Your task to perform on an android device: install app "Pandora - Music & Podcasts" Image 0: 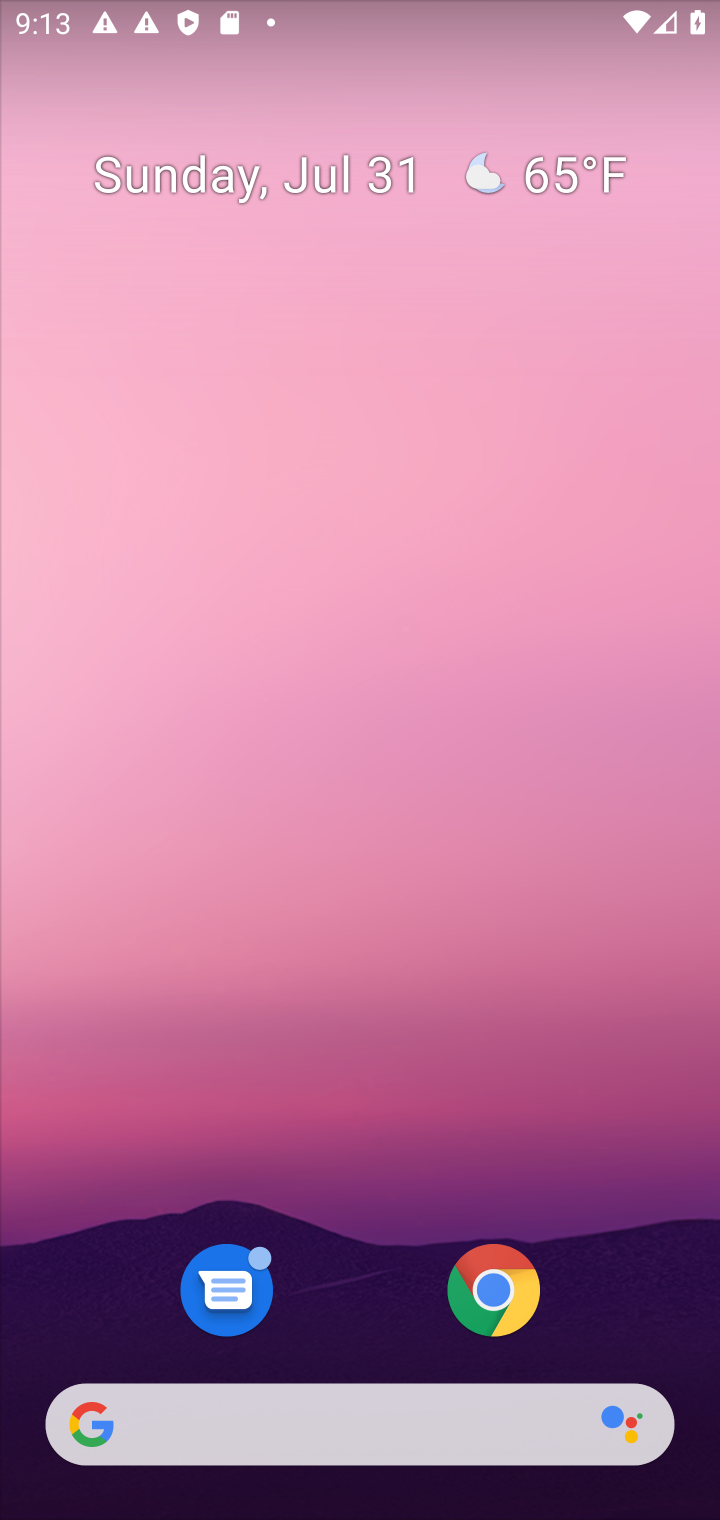
Step 0: drag from (610, 1044) to (609, 141)
Your task to perform on an android device: install app "Pandora - Music & Podcasts" Image 1: 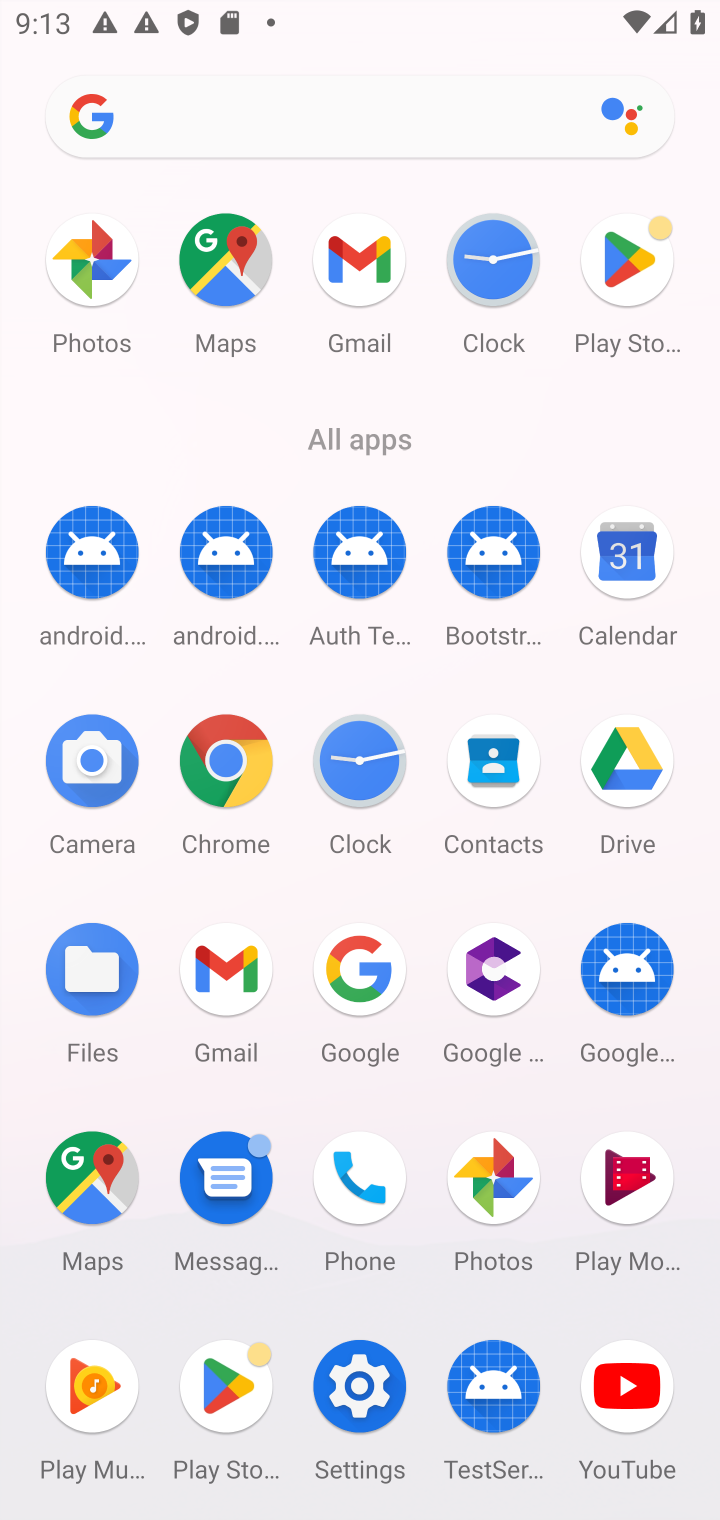
Step 1: click (641, 278)
Your task to perform on an android device: install app "Pandora - Music & Podcasts" Image 2: 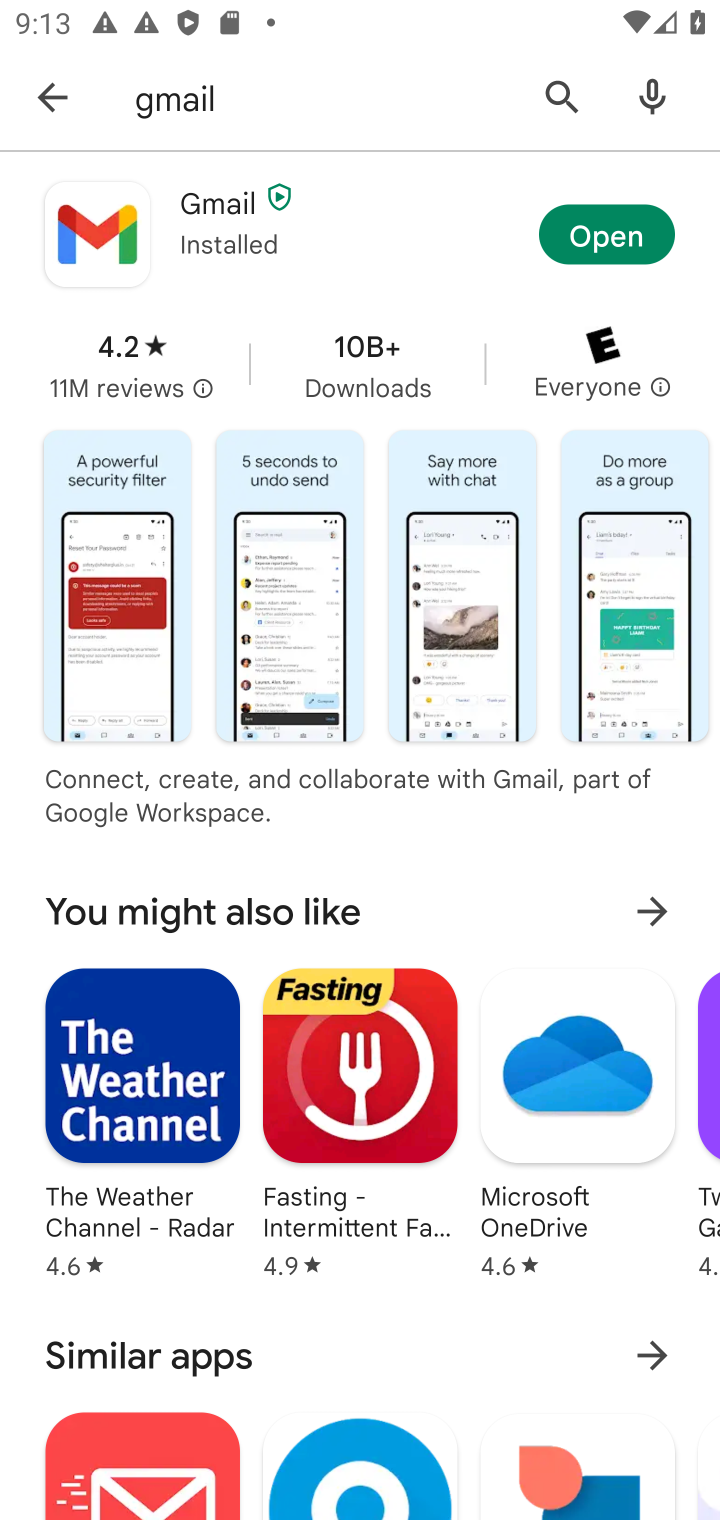
Step 2: click (549, 83)
Your task to perform on an android device: install app "Pandora - Music & Podcasts" Image 3: 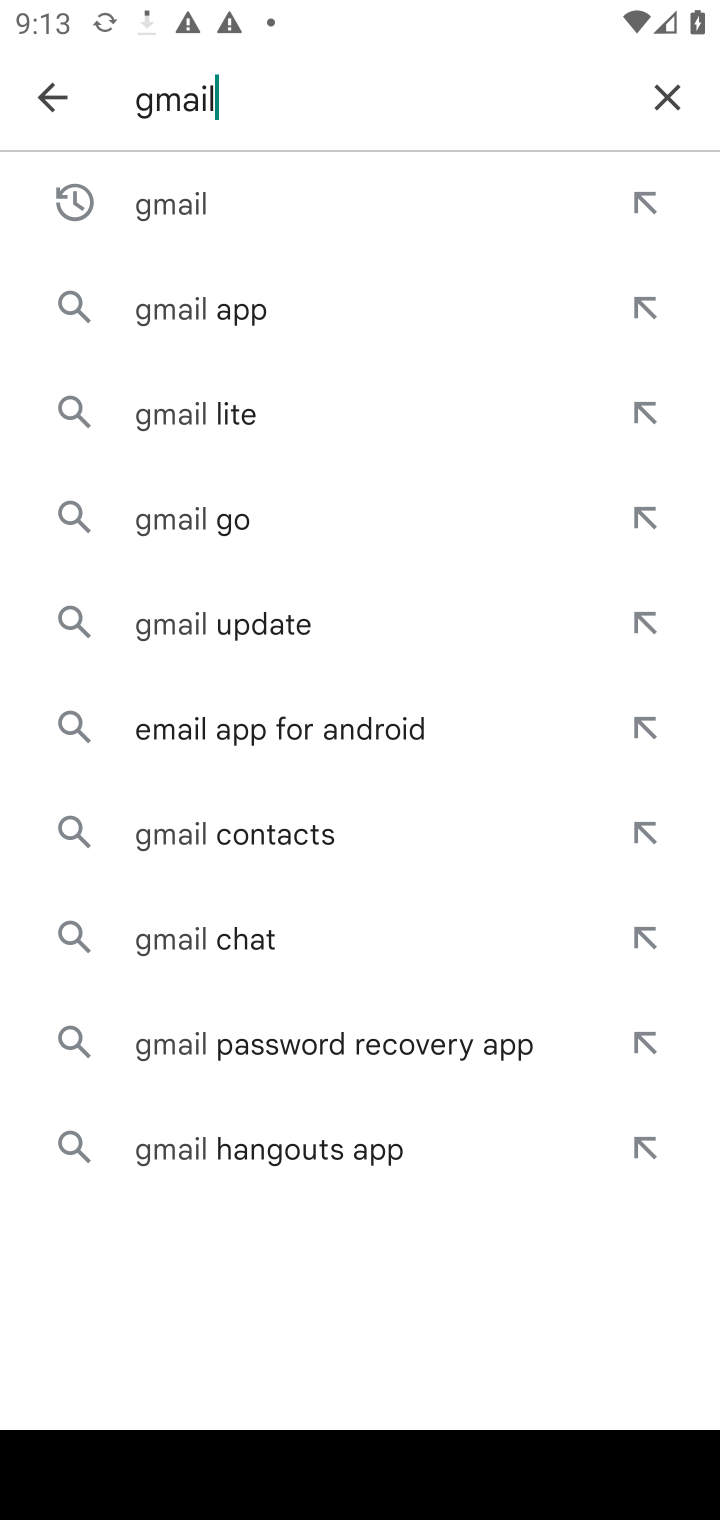
Step 3: click (669, 109)
Your task to perform on an android device: install app "Pandora - Music & Podcasts" Image 4: 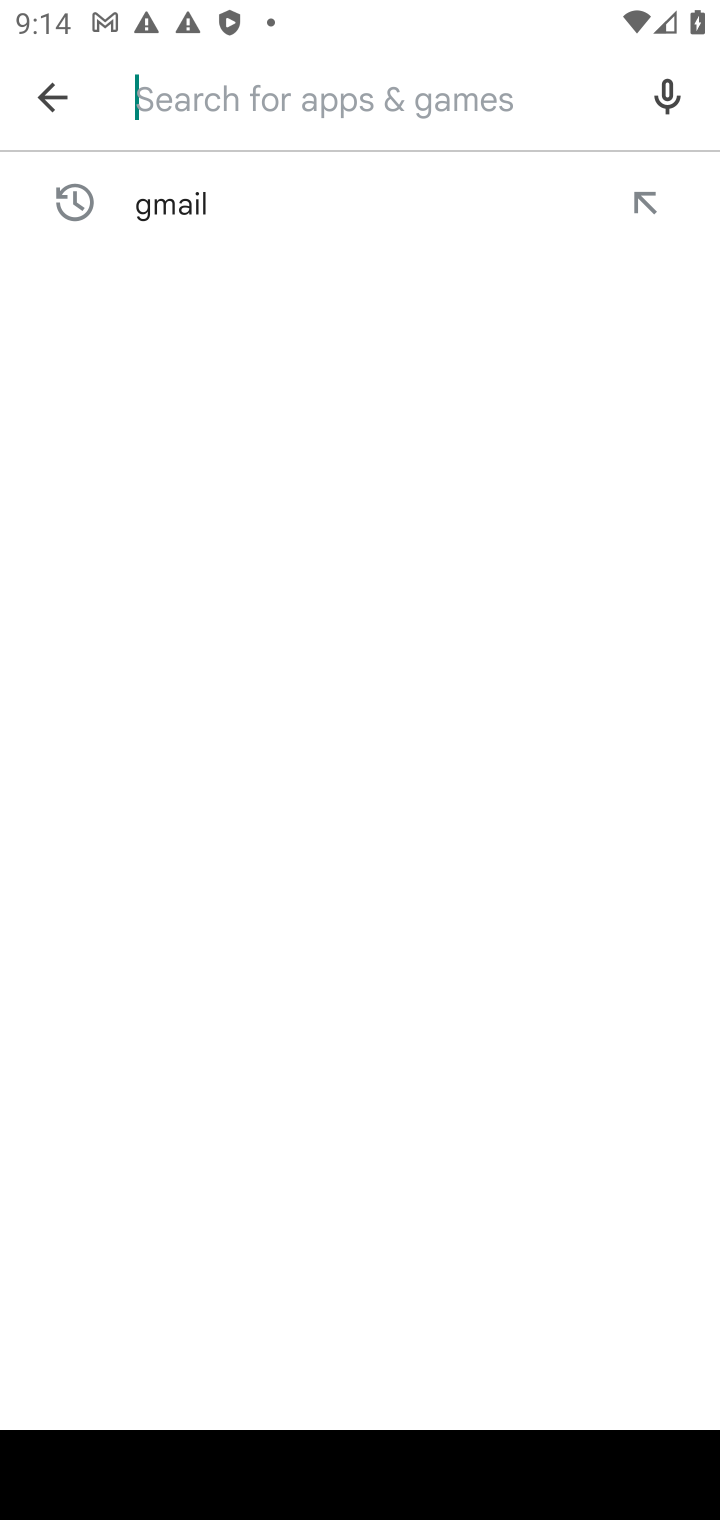
Step 4: type "pandora music podcasts"
Your task to perform on an android device: install app "Pandora - Music & Podcasts" Image 5: 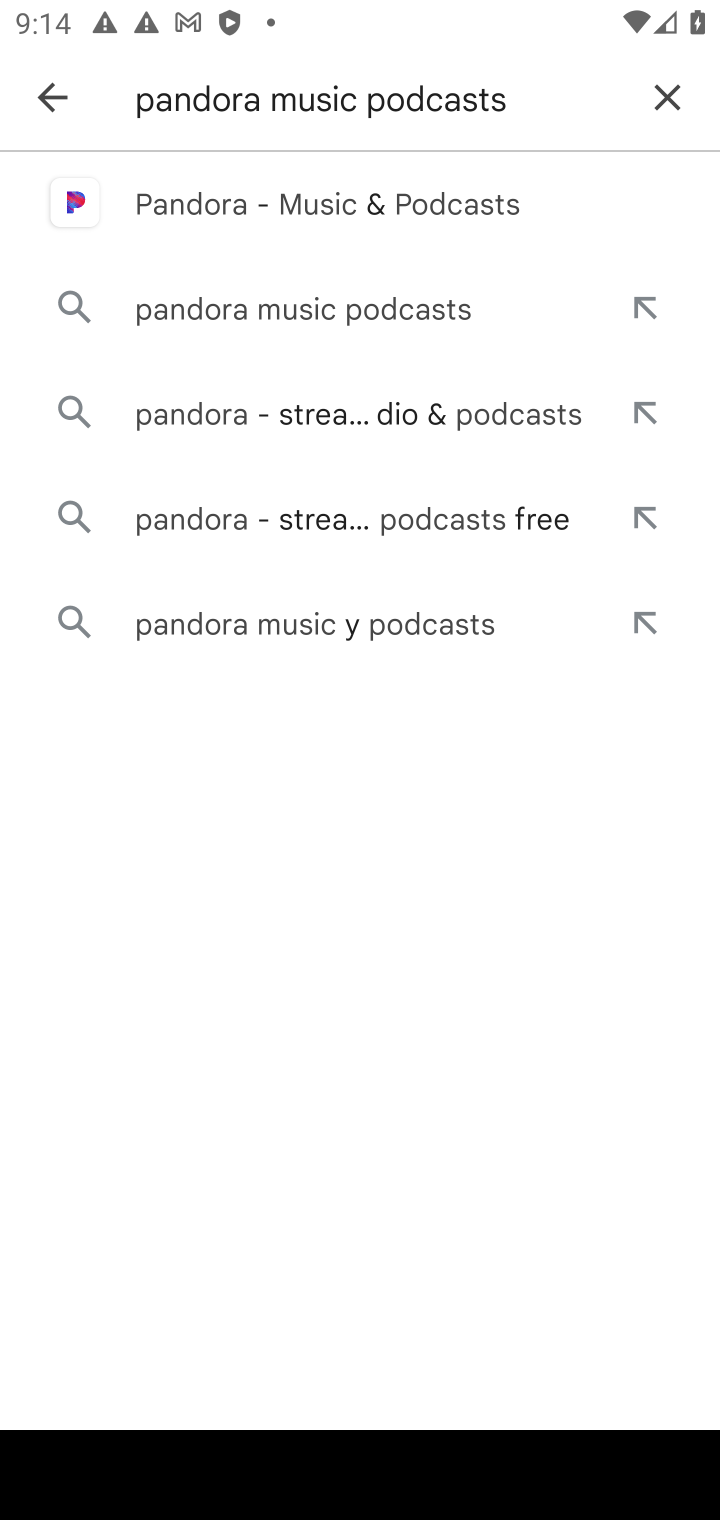
Step 5: click (442, 195)
Your task to perform on an android device: install app "Pandora - Music & Podcasts" Image 6: 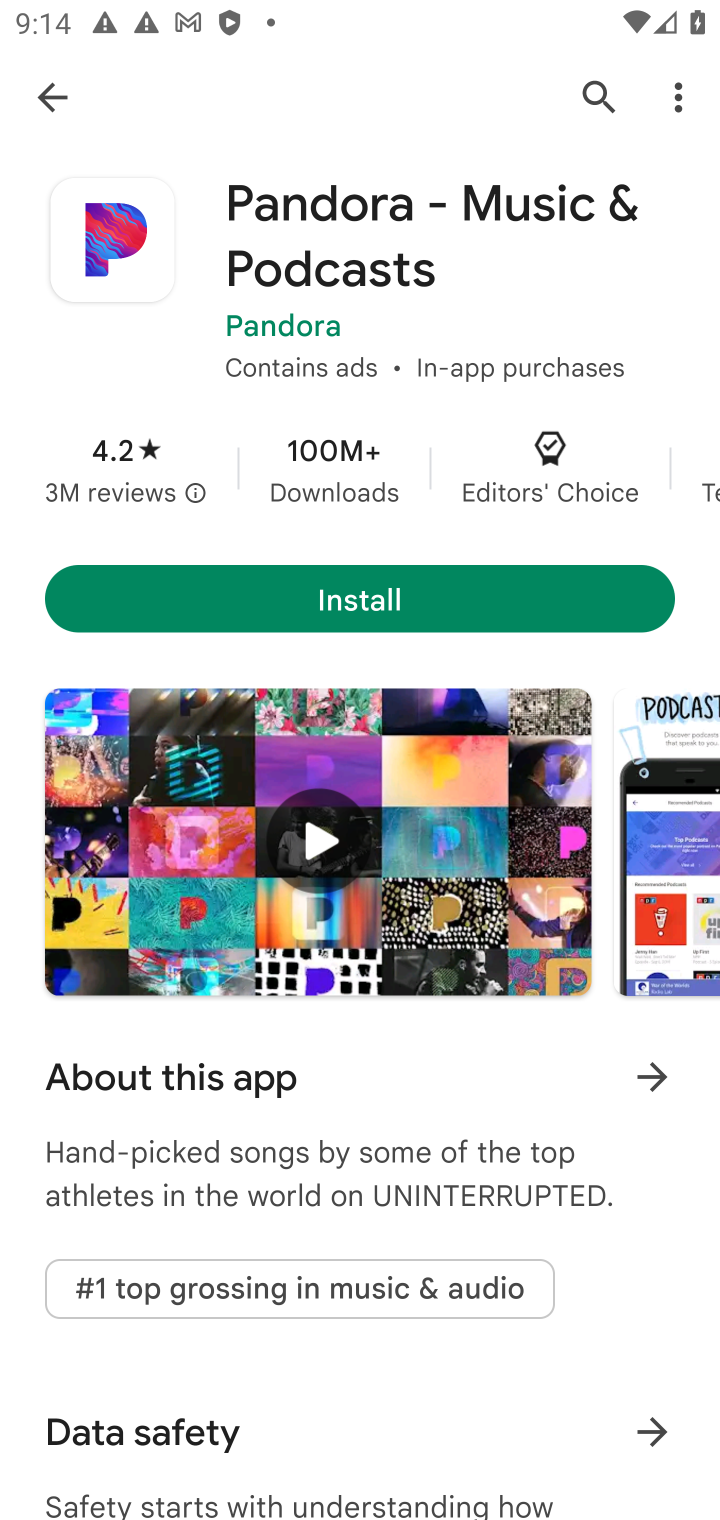
Step 6: click (362, 624)
Your task to perform on an android device: install app "Pandora - Music & Podcasts" Image 7: 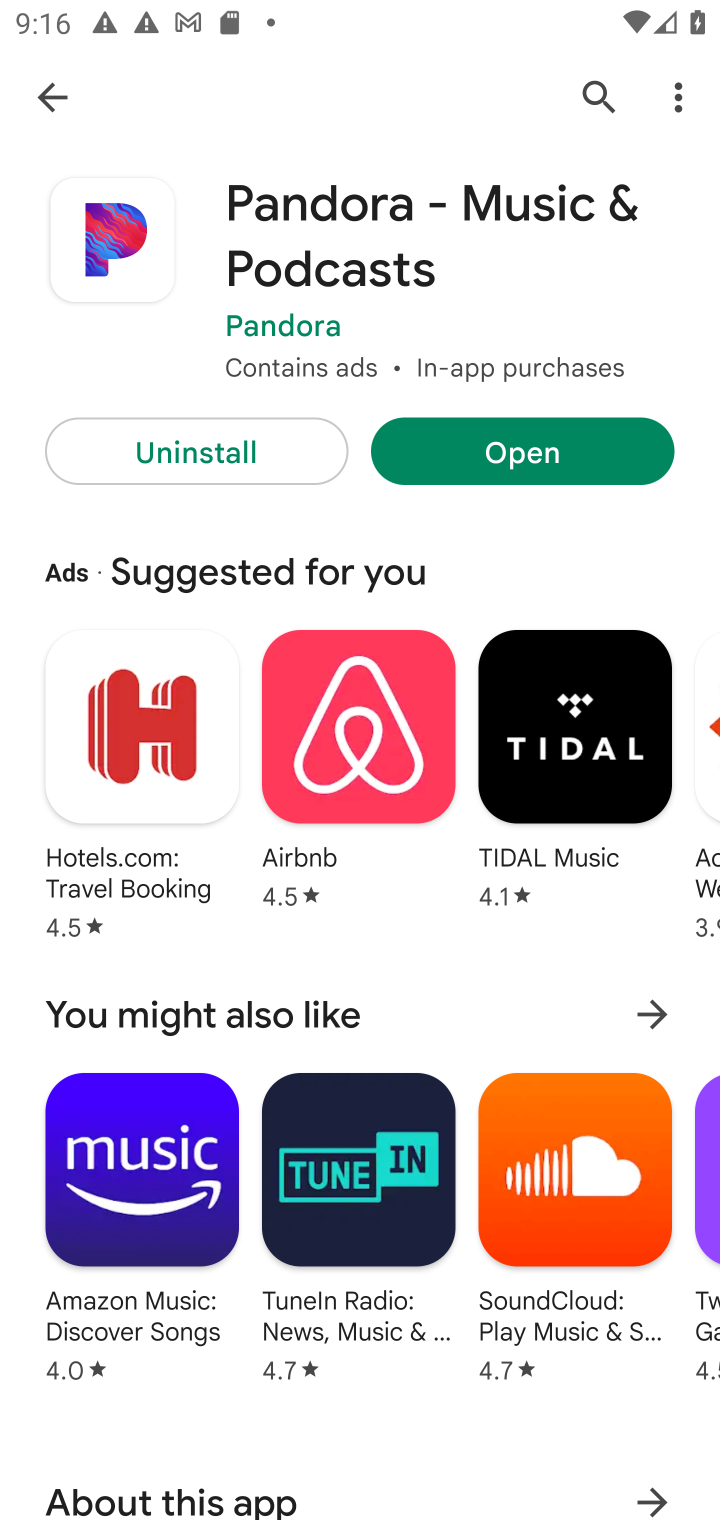
Step 7: task complete